Your task to perform on an android device: Empty the shopping cart on newegg. Add jbl charge 4 to the cart on newegg, then select checkout. Image 0: 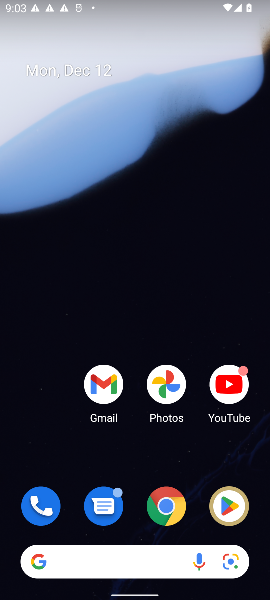
Step 0: click (127, 558)
Your task to perform on an android device: Empty the shopping cart on newegg. Add jbl charge 4 to the cart on newegg, then select checkout. Image 1: 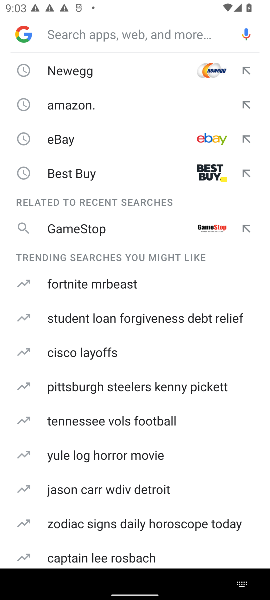
Step 1: type "newegg"
Your task to perform on an android device: Empty the shopping cart on newegg. Add jbl charge 4 to the cart on newegg, then select checkout. Image 2: 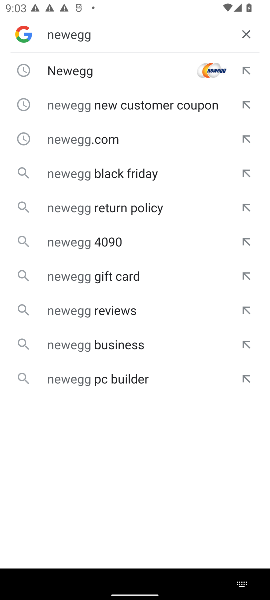
Step 2: click (89, 78)
Your task to perform on an android device: Empty the shopping cart on newegg. Add jbl charge 4 to the cart on newegg, then select checkout. Image 3: 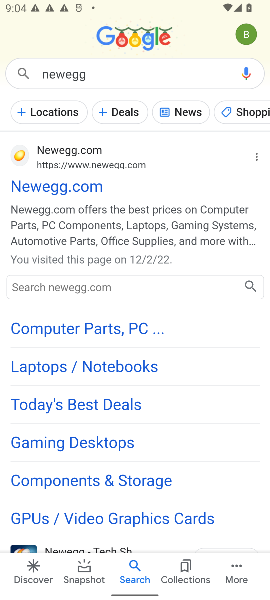
Step 3: click (43, 191)
Your task to perform on an android device: Empty the shopping cart on newegg. Add jbl charge 4 to the cart on newegg, then select checkout. Image 4: 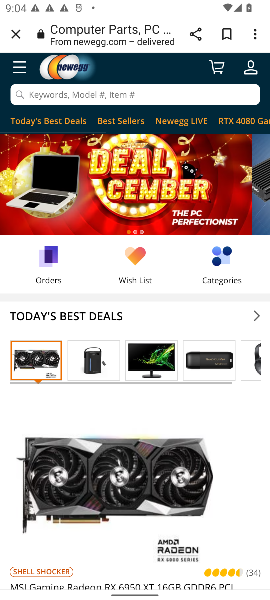
Step 4: click (59, 92)
Your task to perform on an android device: Empty the shopping cart on newegg. Add jbl charge 4 to the cart on newegg, then select checkout. Image 5: 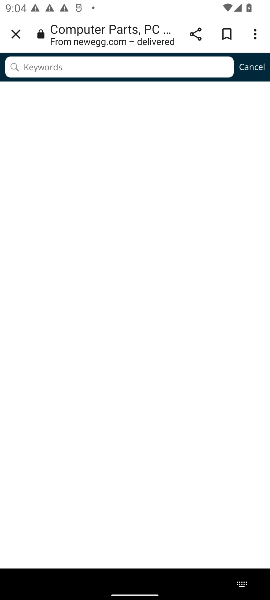
Step 5: type "jbl charge 4"
Your task to perform on an android device: Empty the shopping cart on newegg. Add jbl charge 4 to the cart on newegg, then select checkout. Image 6: 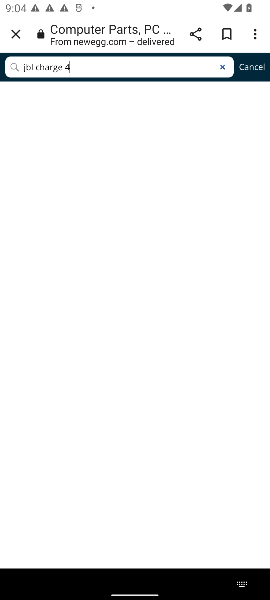
Step 6: task complete